Your task to perform on an android device: Search for Italian restaurants on Maps Image 0: 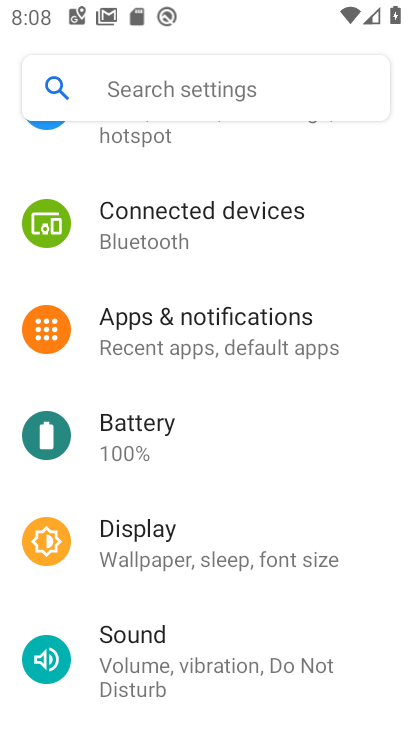
Step 0: press home button
Your task to perform on an android device: Search for Italian restaurants on Maps Image 1: 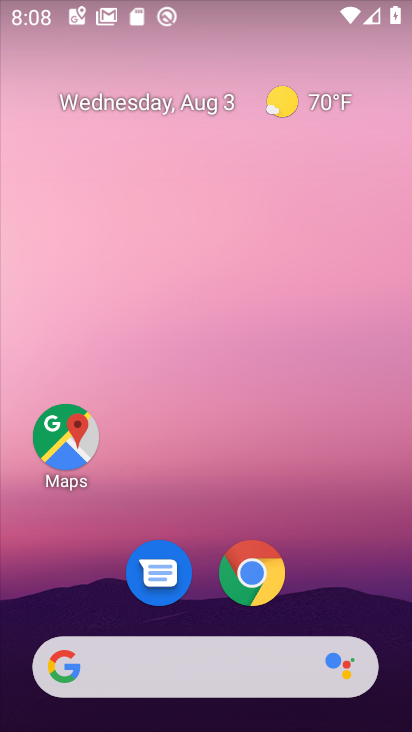
Step 1: click (55, 446)
Your task to perform on an android device: Search for Italian restaurants on Maps Image 2: 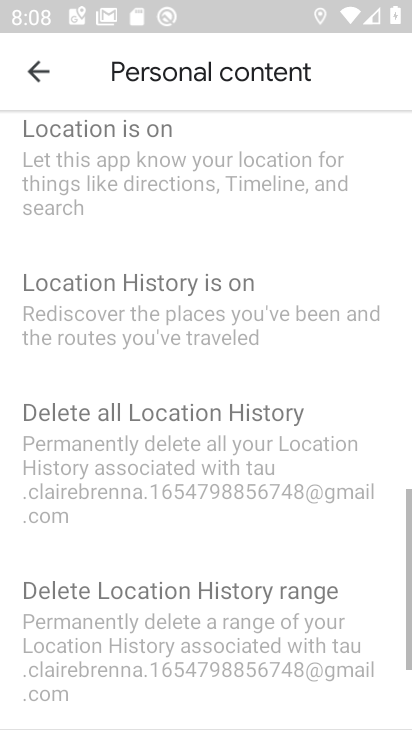
Step 2: click (49, 66)
Your task to perform on an android device: Search for Italian restaurants on Maps Image 3: 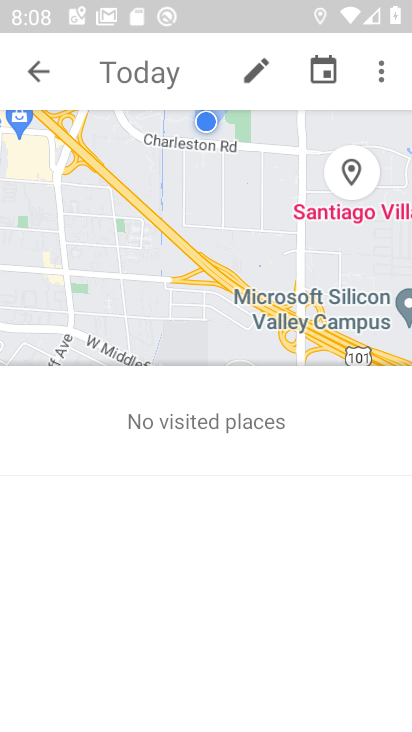
Step 3: click (49, 66)
Your task to perform on an android device: Search for Italian restaurants on Maps Image 4: 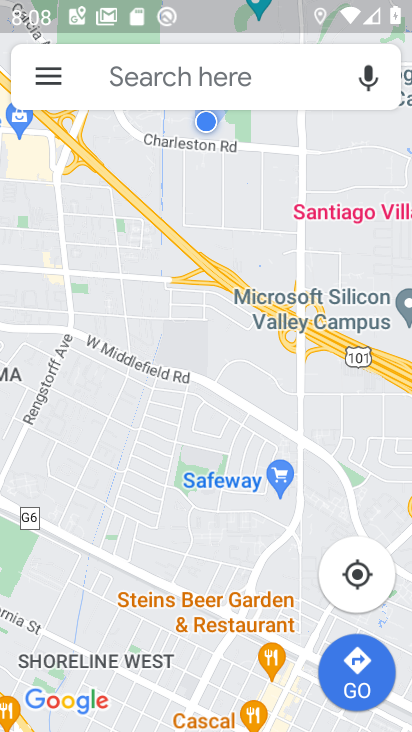
Step 4: click (111, 80)
Your task to perform on an android device: Search for Italian restaurants on Maps Image 5: 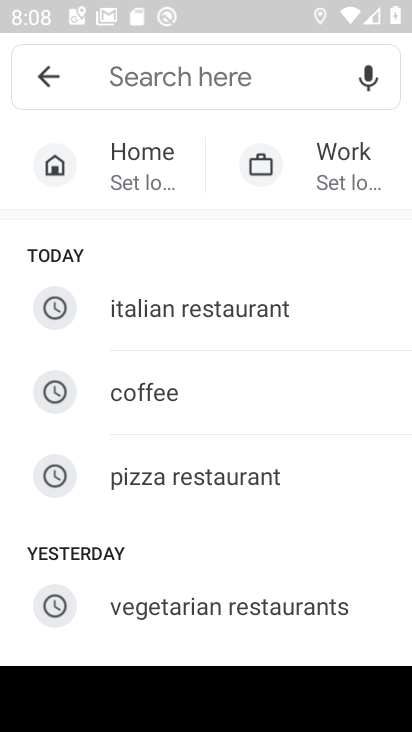
Step 5: type "italian restaurants"
Your task to perform on an android device: Search for Italian restaurants on Maps Image 6: 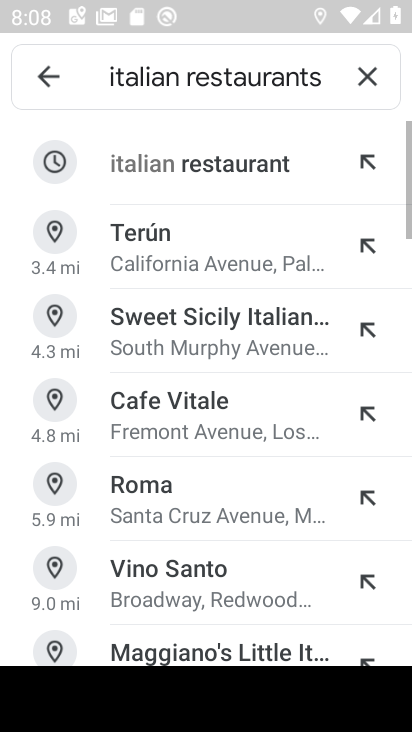
Step 6: click (231, 160)
Your task to perform on an android device: Search for Italian restaurants on Maps Image 7: 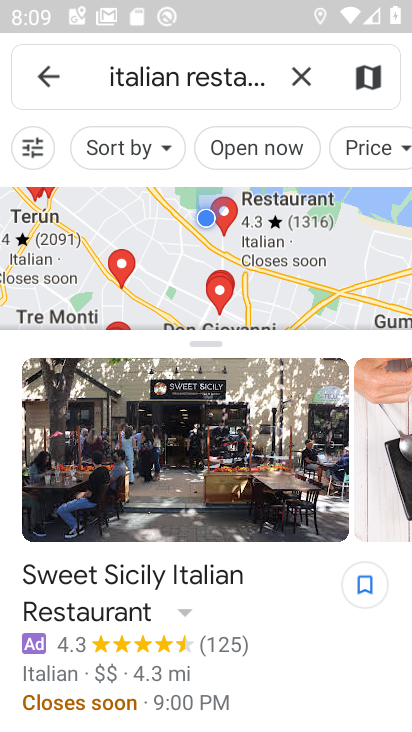
Step 7: task complete